Your task to perform on an android device: turn on showing notifications on the lock screen Image 0: 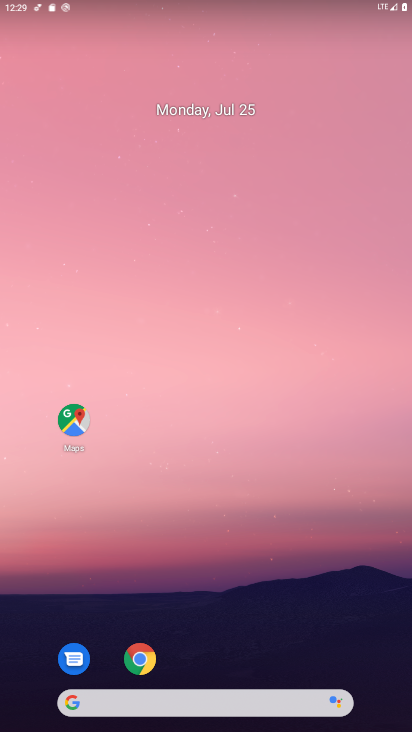
Step 0: press home button
Your task to perform on an android device: turn on showing notifications on the lock screen Image 1: 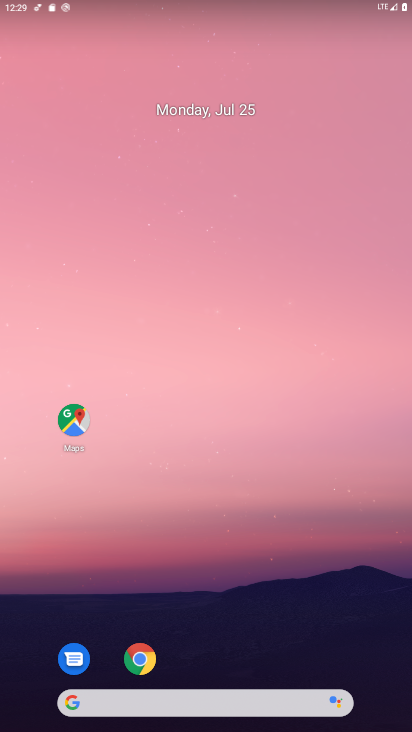
Step 1: drag from (213, 675) to (223, 3)
Your task to perform on an android device: turn on showing notifications on the lock screen Image 2: 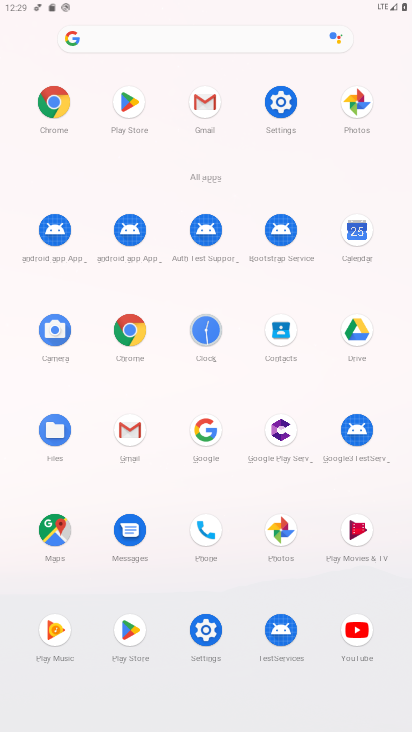
Step 2: click (280, 99)
Your task to perform on an android device: turn on showing notifications on the lock screen Image 3: 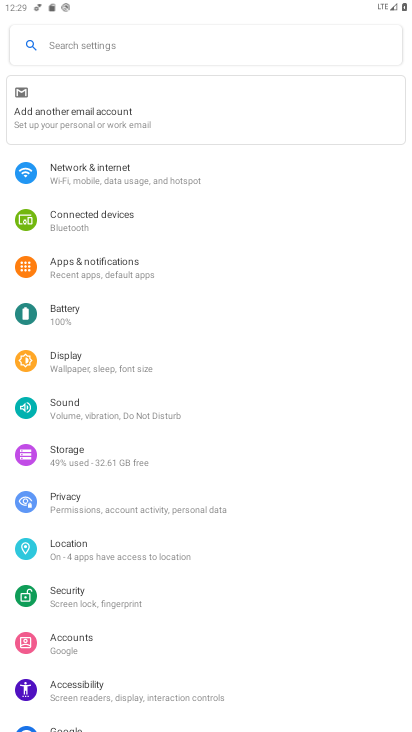
Step 3: click (171, 264)
Your task to perform on an android device: turn on showing notifications on the lock screen Image 4: 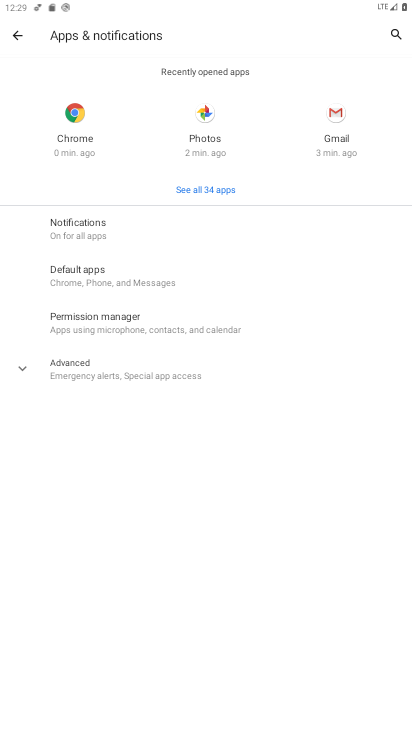
Step 4: click (119, 222)
Your task to perform on an android device: turn on showing notifications on the lock screen Image 5: 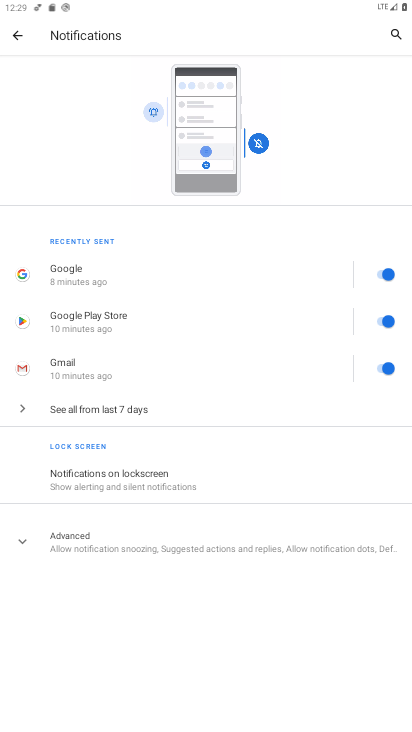
Step 5: click (209, 474)
Your task to perform on an android device: turn on showing notifications on the lock screen Image 6: 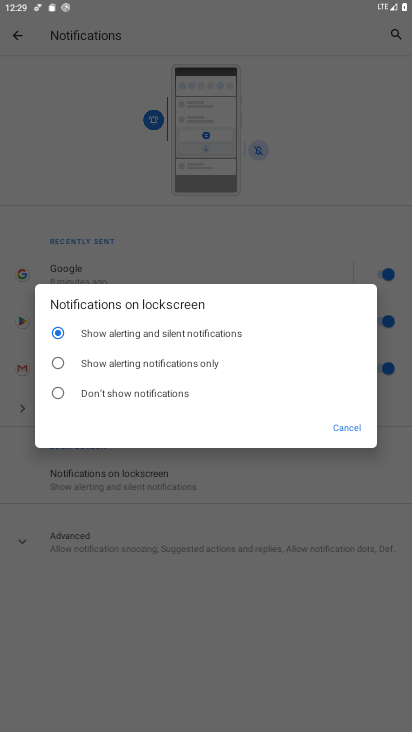
Step 6: click (62, 360)
Your task to perform on an android device: turn on showing notifications on the lock screen Image 7: 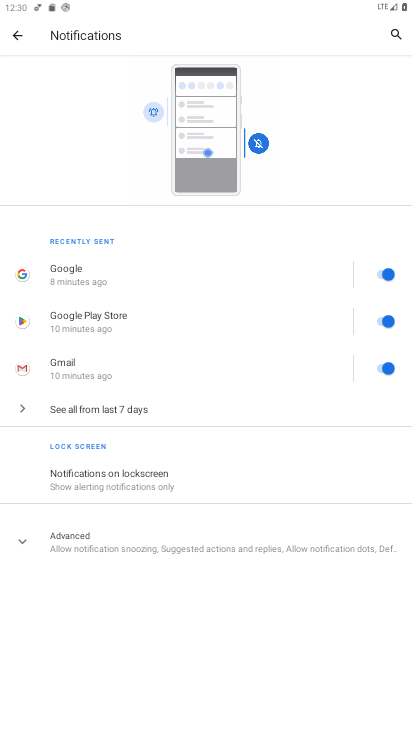
Step 7: task complete